Your task to perform on an android device: Go to eBay Image 0: 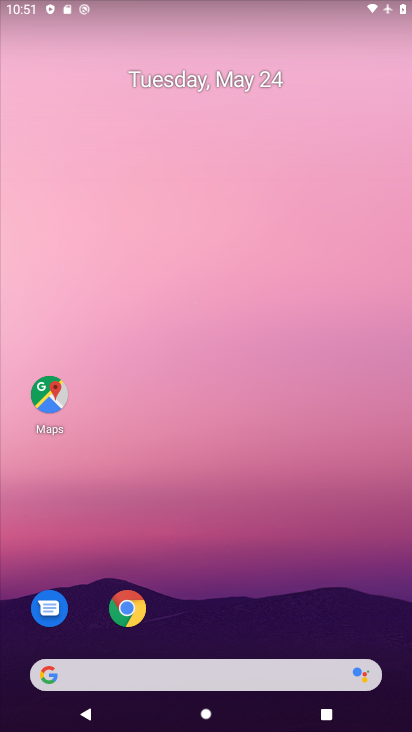
Step 0: click (125, 609)
Your task to perform on an android device: Go to eBay Image 1: 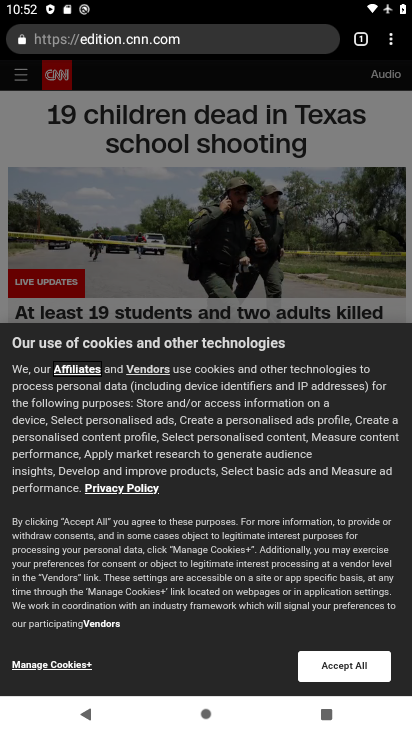
Step 1: click (196, 35)
Your task to perform on an android device: Go to eBay Image 2: 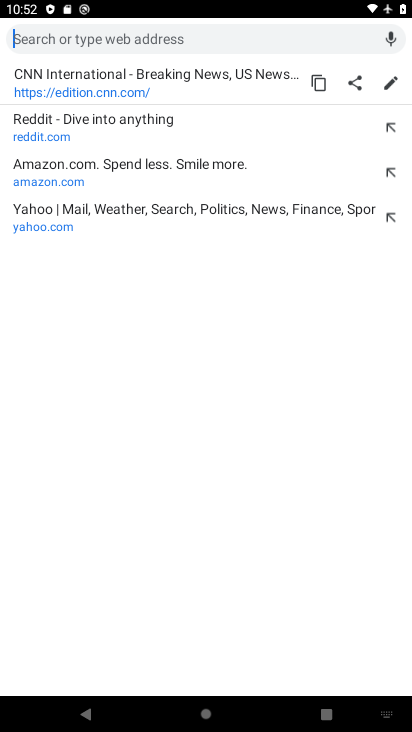
Step 2: type "ebay"
Your task to perform on an android device: Go to eBay Image 3: 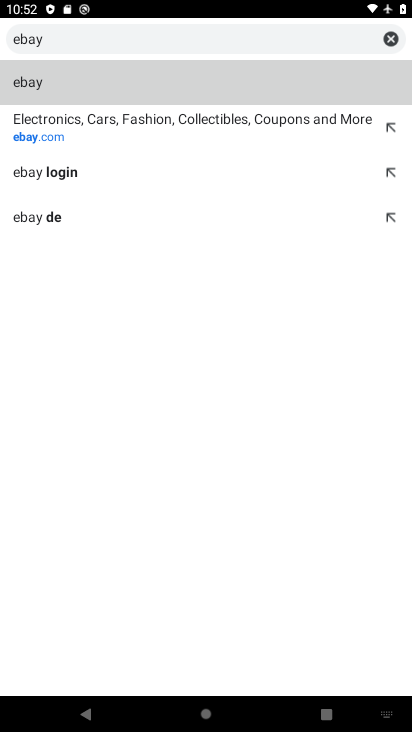
Step 3: click (70, 90)
Your task to perform on an android device: Go to eBay Image 4: 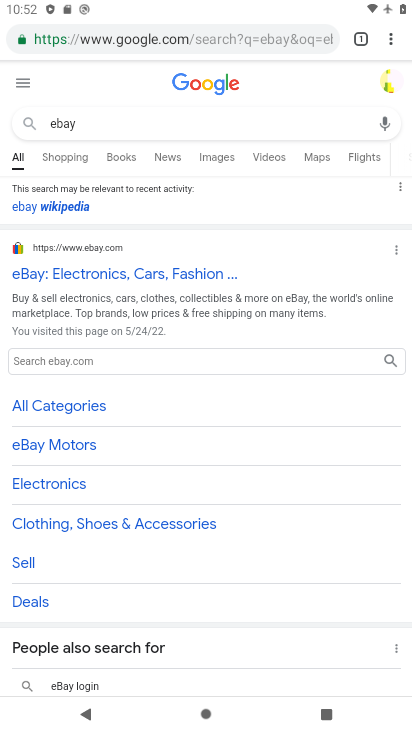
Step 4: click (68, 285)
Your task to perform on an android device: Go to eBay Image 5: 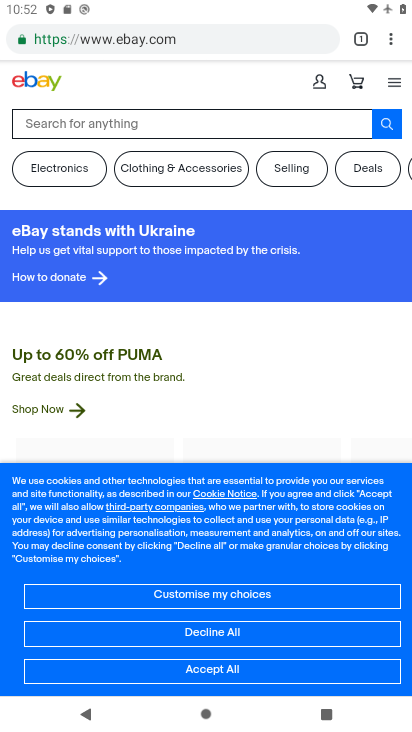
Step 5: task complete